Your task to perform on an android device: View the shopping cart on walmart. Add corsair k70 to the cart on walmart, then select checkout. Image 0: 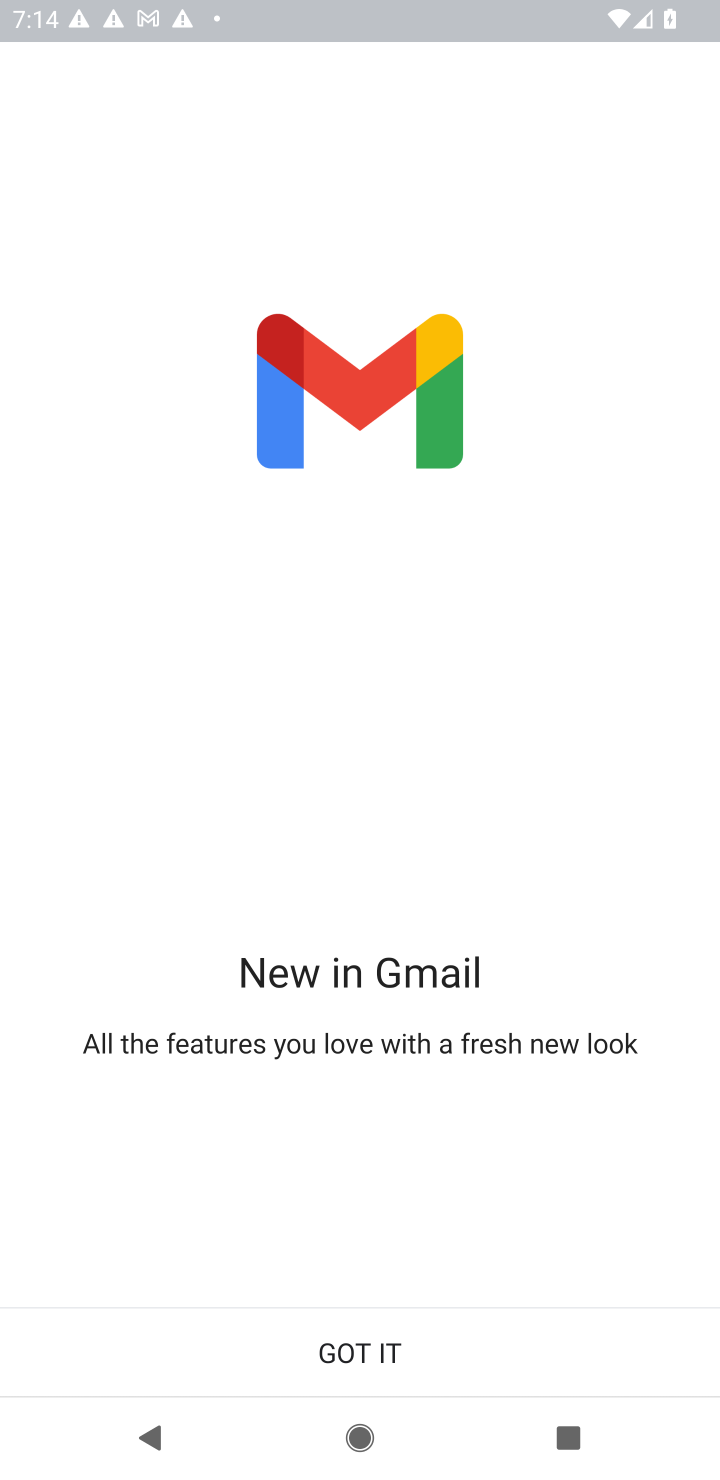
Step 0: press home button
Your task to perform on an android device: View the shopping cart on walmart. Add corsair k70 to the cart on walmart, then select checkout. Image 1: 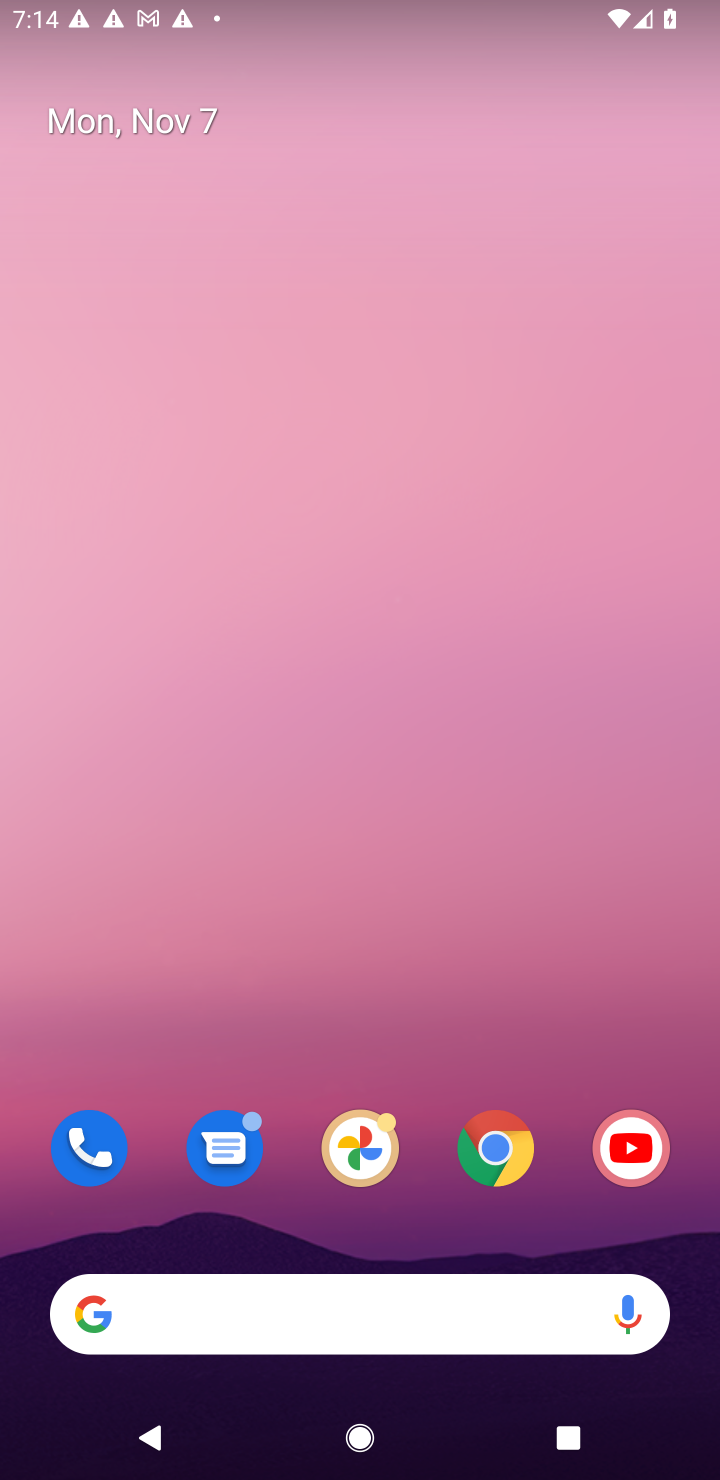
Step 1: click (493, 1127)
Your task to perform on an android device: View the shopping cart on walmart. Add corsair k70 to the cart on walmart, then select checkout. Image 2: 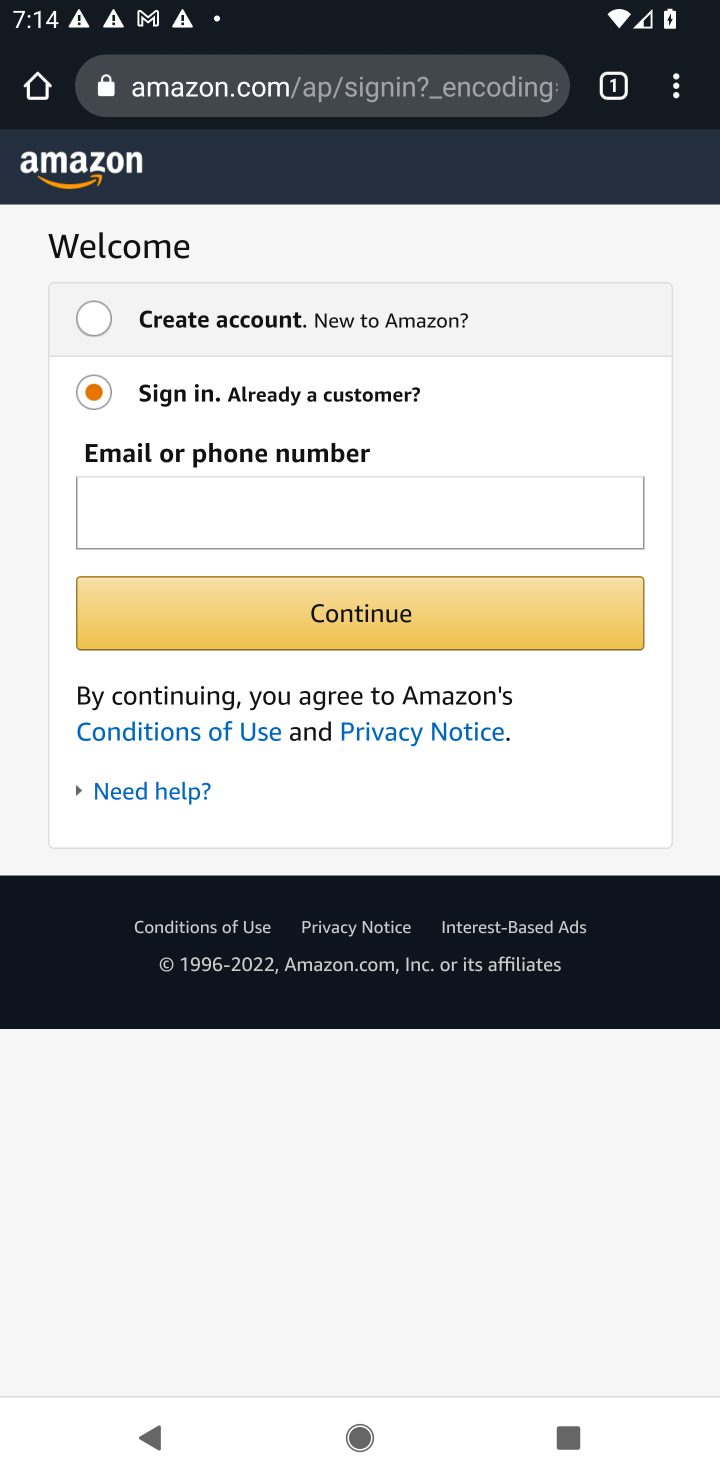
Step 2: click (435, 79)
Your task to perform on an android device: View the shopping cart on walmart. Add corsair k70 to the cart on walmart, then select checkout. Image 3: 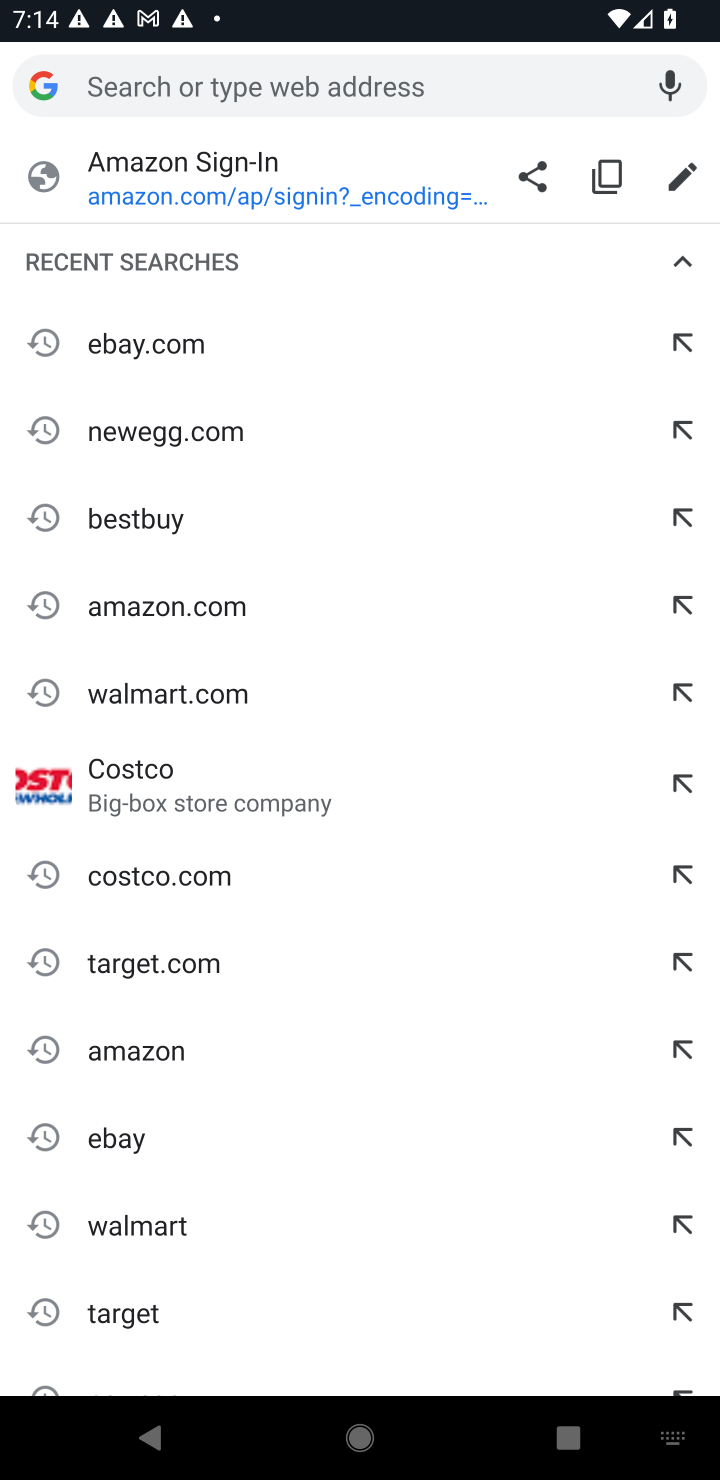
Step 3: type "walmart"
Your task to perform on an android device: View the shopping cart on walmart. Add corsair k70 to the cart on walmart, then select checkout. Image 4: 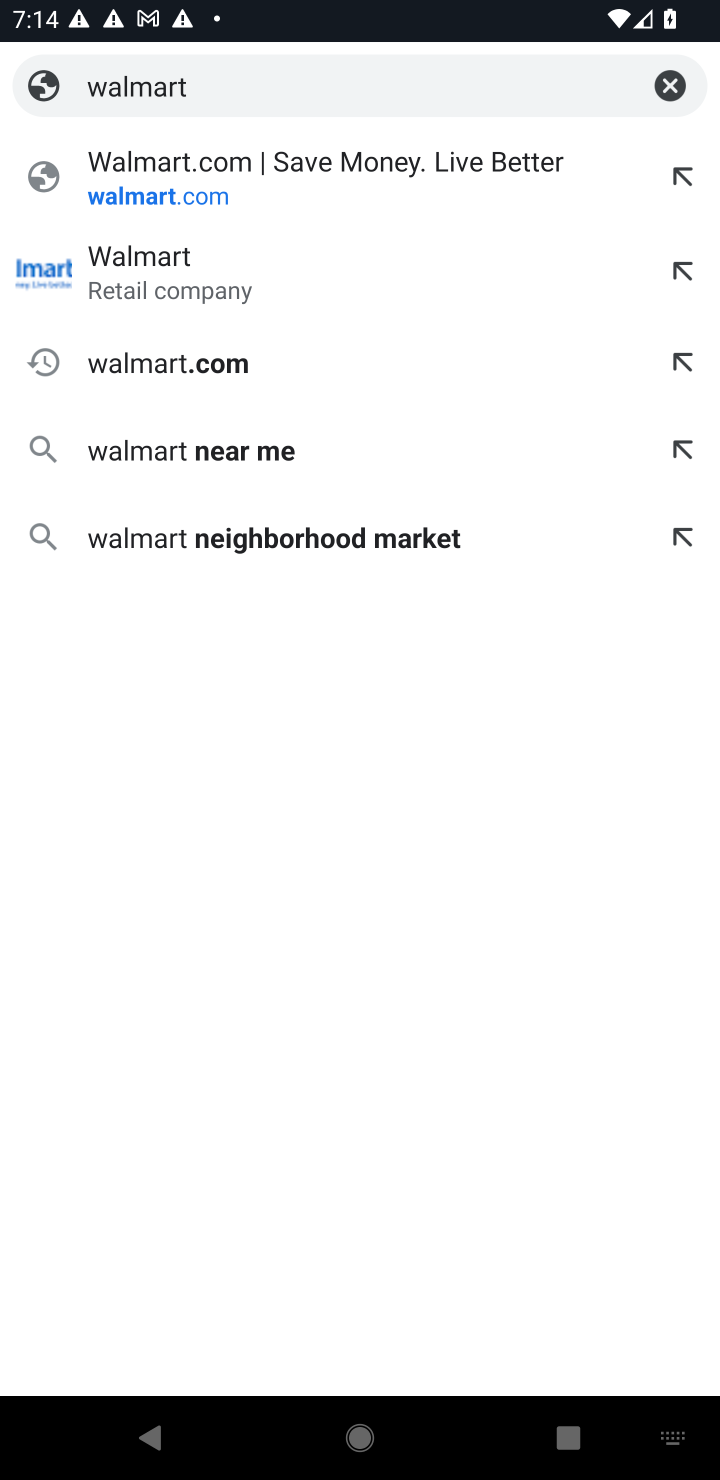
Step 4: click (228, 367)
Your task to perform on an android device: View the shopping cart on walmart. Add corsair k70 to the cart on walmart, then select checkout. Image 5: 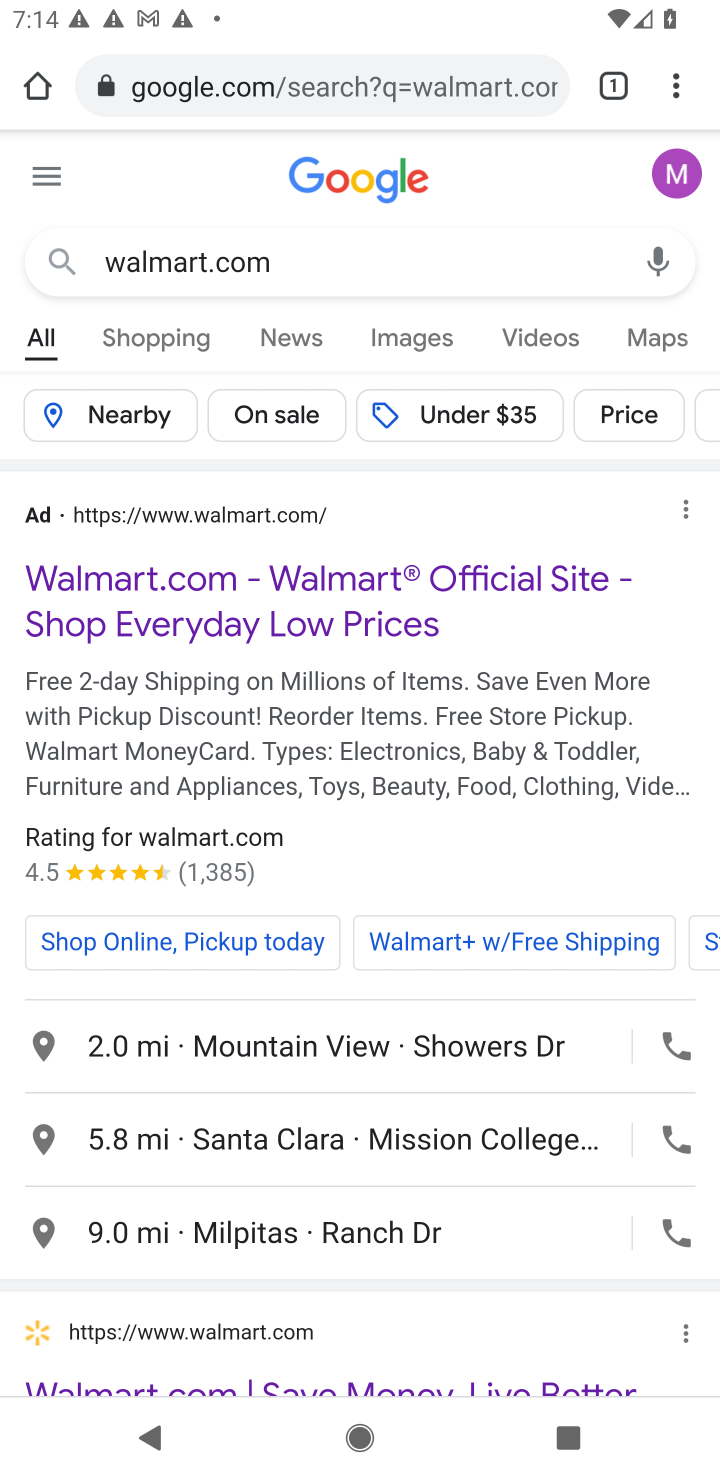
Step 5: click (276, 514)
Your task to perform on an android device: View the shopping cart on walmart. Add corsair k70 to the cart on walmart, then select checkout. Image 6: 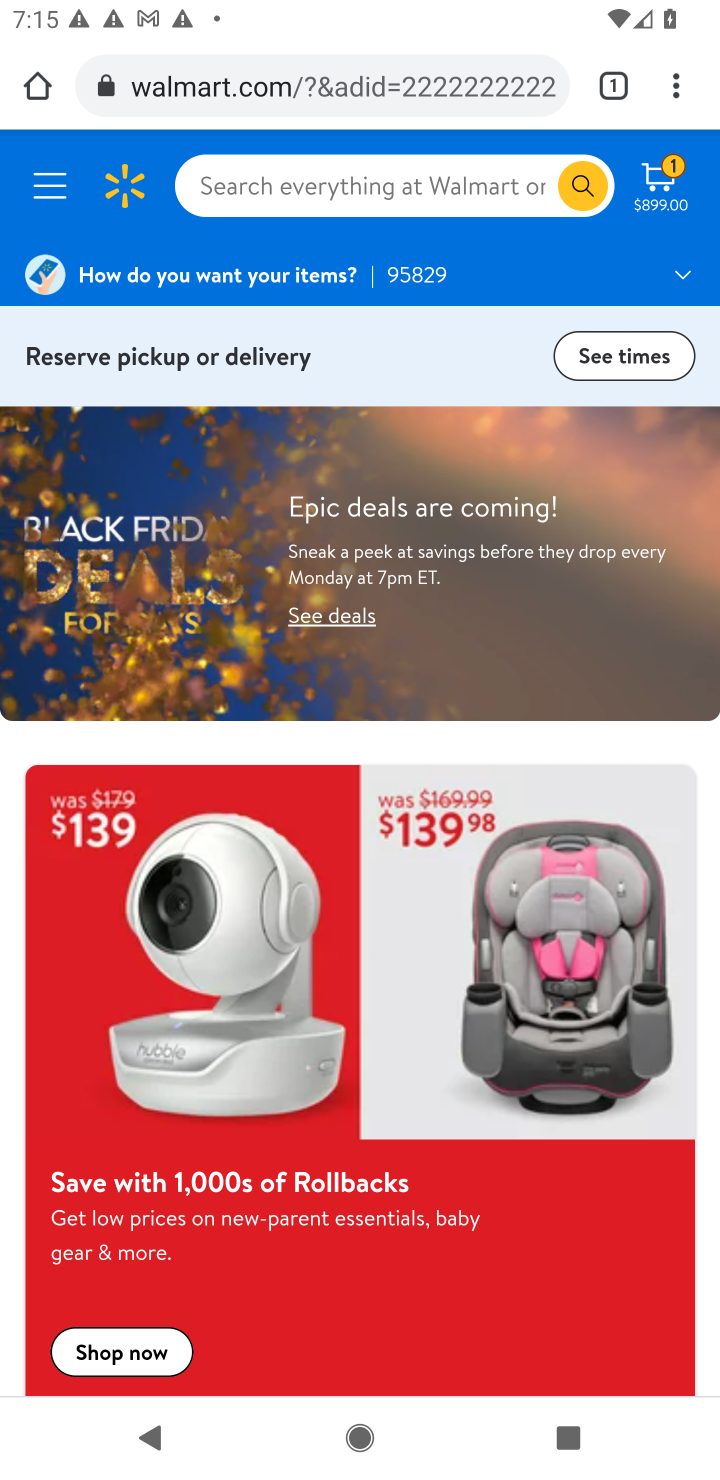
Step 6: click (433, 173)
Your task to perform on an android device: View the shopping cart on walmart. Add corsair k70 to the cart on walmart, then select checkout. Image 7: 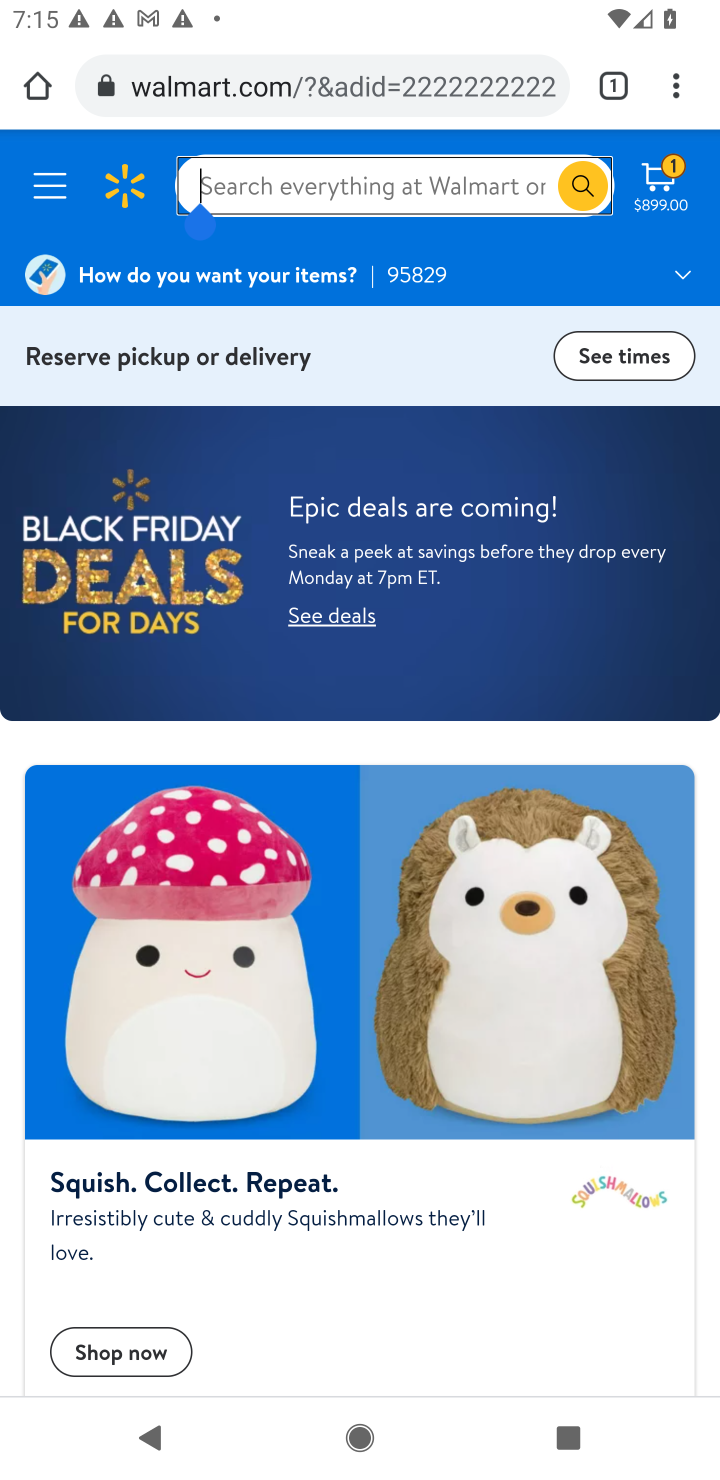
Step 7: type "corsair k70"
Your task to perform on an android device: View the shopping cart on walmart. Add corsair k70 to the cart on walmart, then select checkout. Image 8: 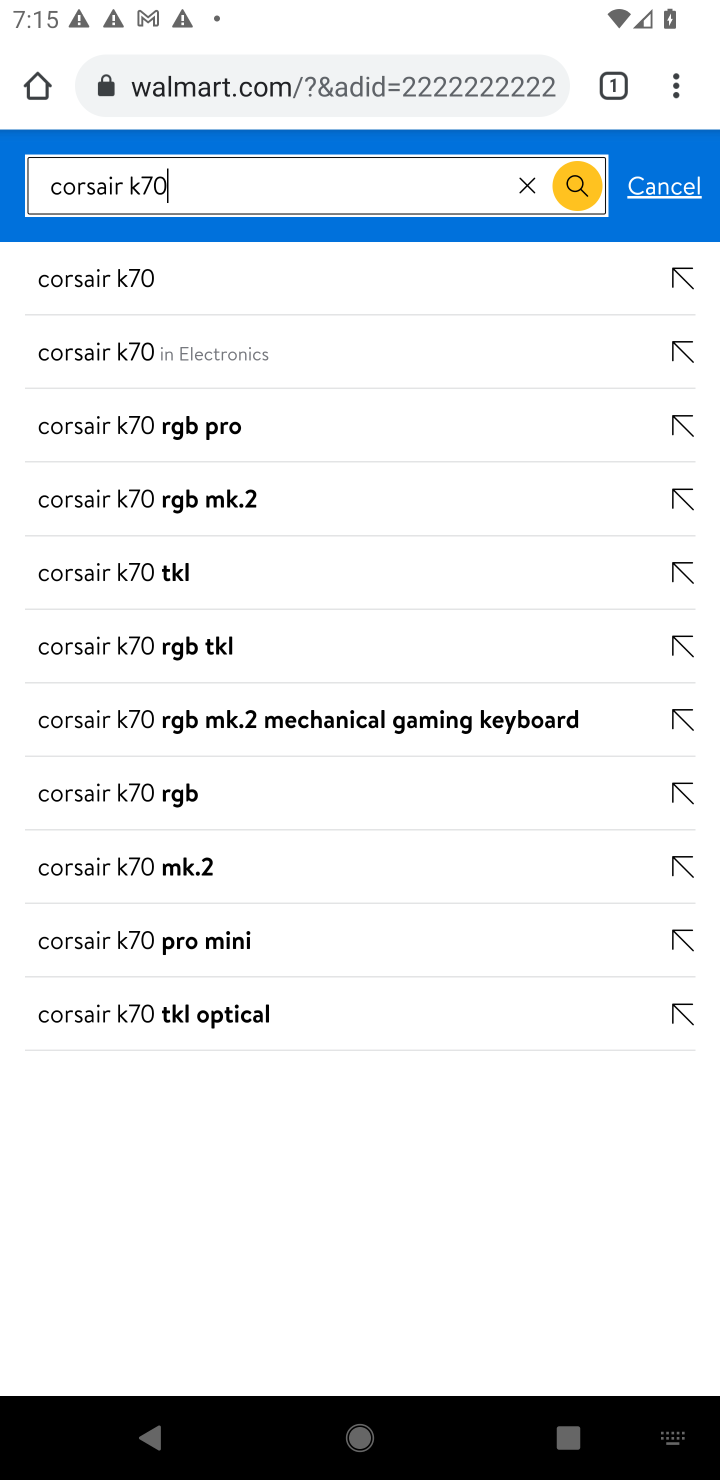
Step 8: click (131, 266)
Your task to perform on an android device: View the shopping cart on walmart. Add corsair k70 to the cart on walmart, then select checkout. Image 9: 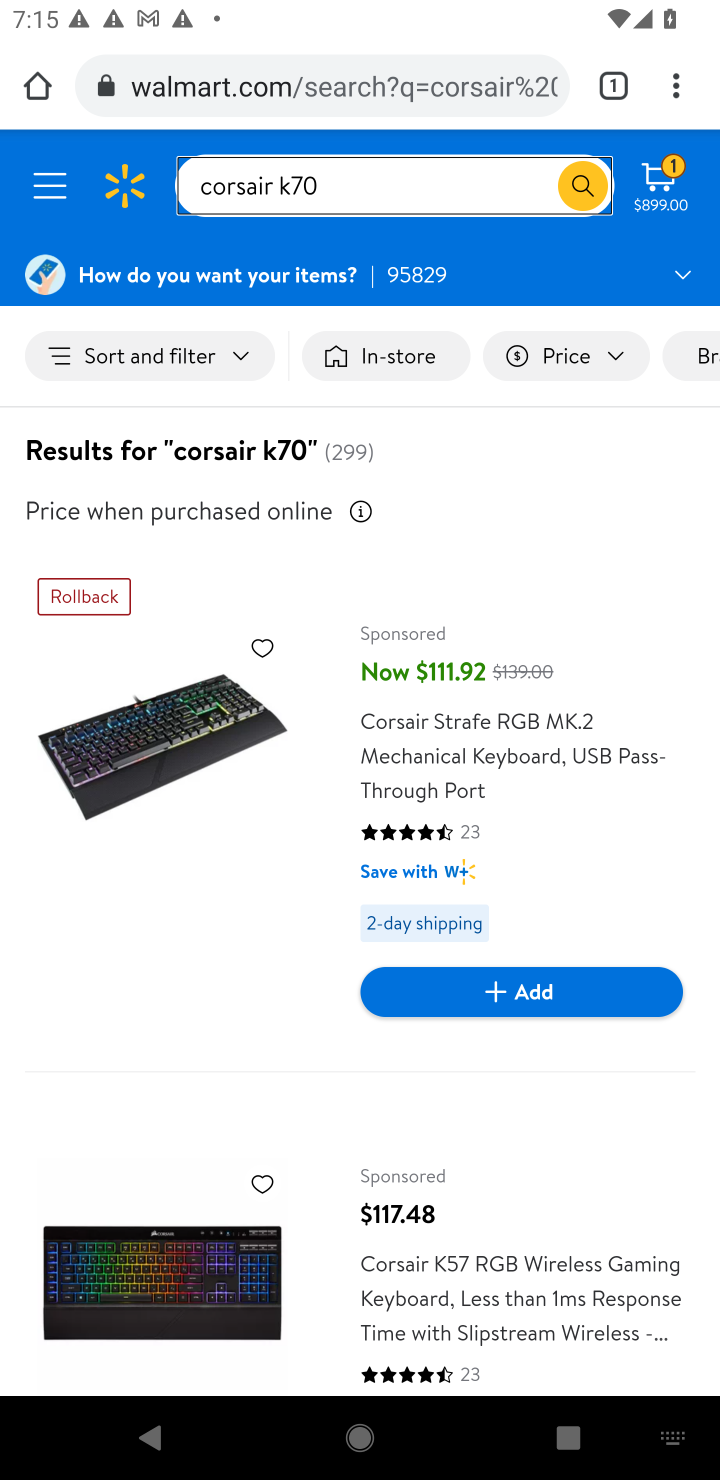
Step 9: drag from (212, 960) to (244, 485)
Your task to perform on an android device: View the shopping cart on walmart. Add corsair k70 to the cart on walmart, then select checkout. Image 10: 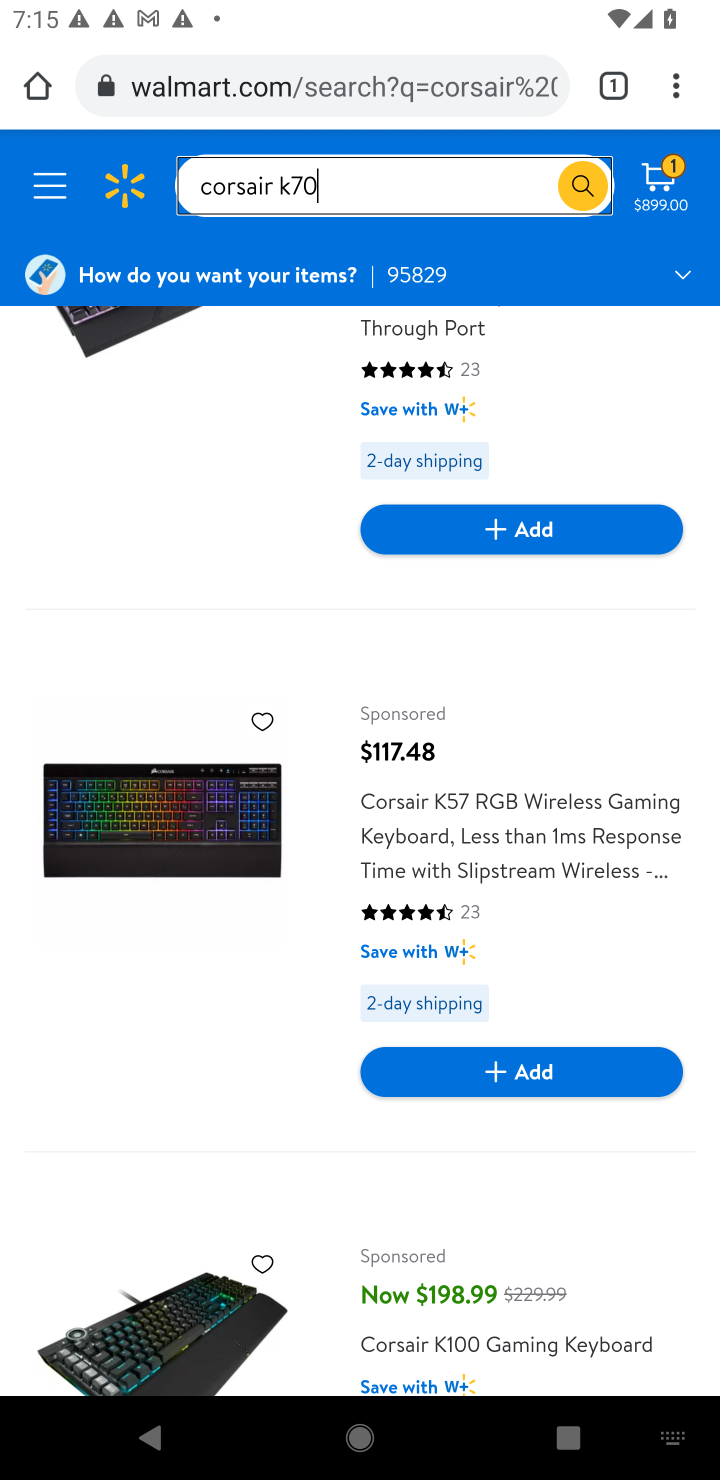
Step 10: drag from (252, 1093) to (281, 661)
Your task to perform on an android device: View the shopping cart on walmart. Add corsair k70 to the cart on walmart, then select checkout. Image 11: 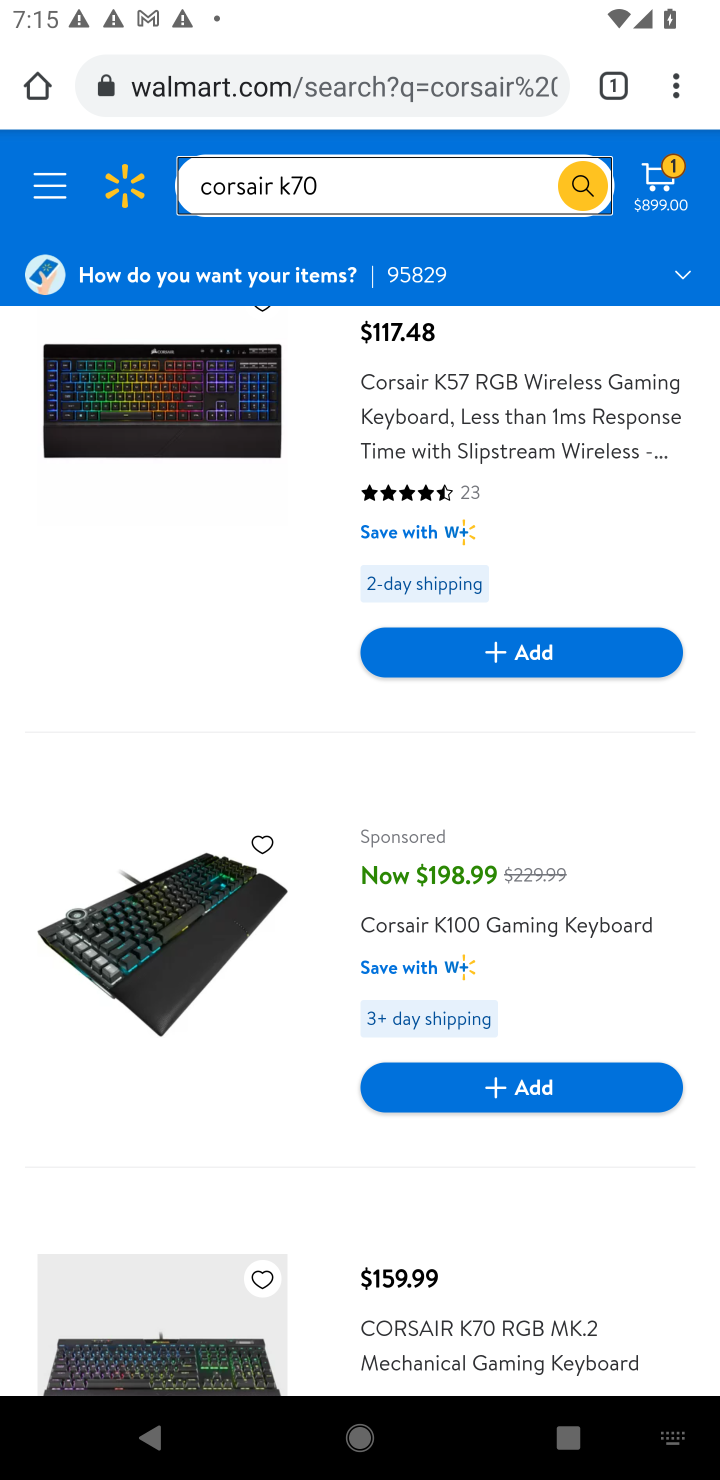
Step 11: drag from (214, 1043) to (285, 545)
Your task to perform on an android device: View the shopping cart on walmart. Add corsair k70 to the cart on walmart, then select checkout. Image 12: 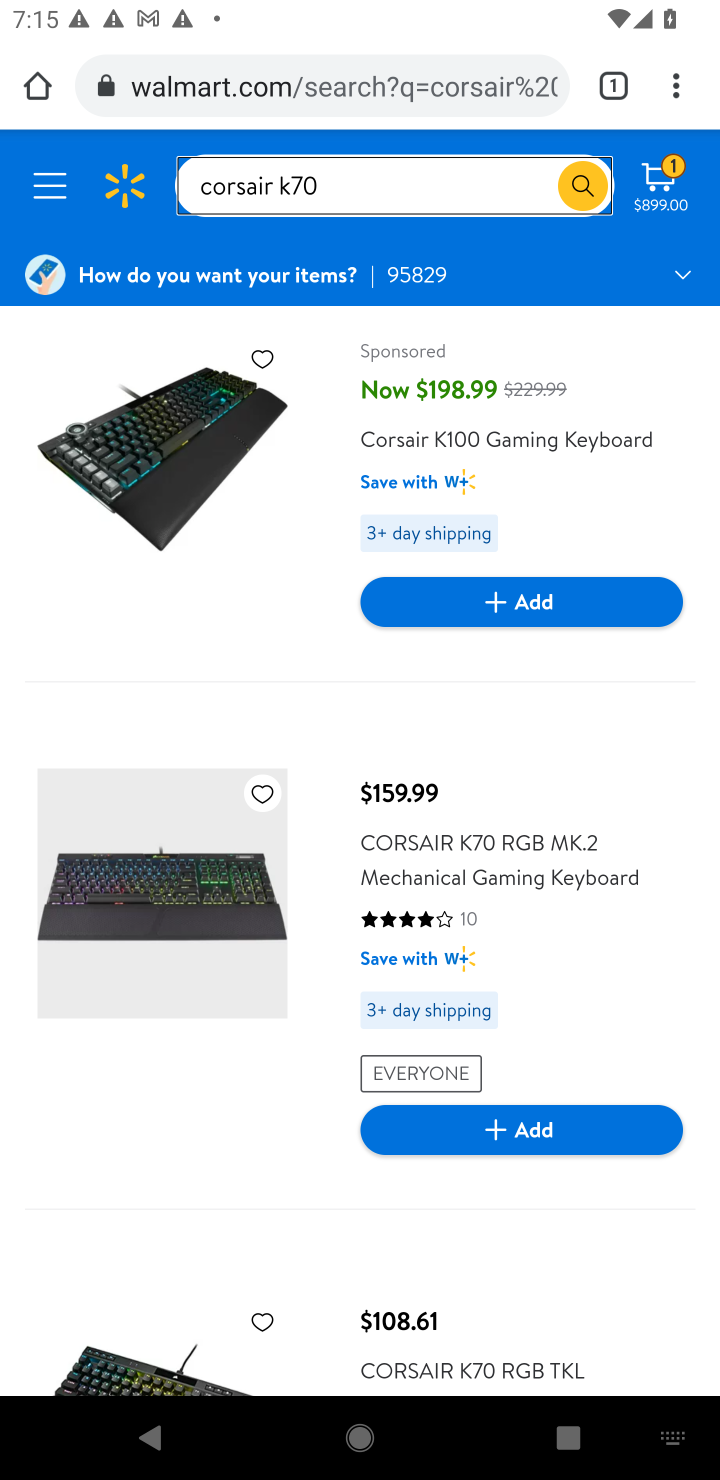
Step 12: click (201, 896)
Your task to perform on an android device: View the shopping cart on walmart. Add corsair k70 to the cart on walmart, then select checkout. Image 13: 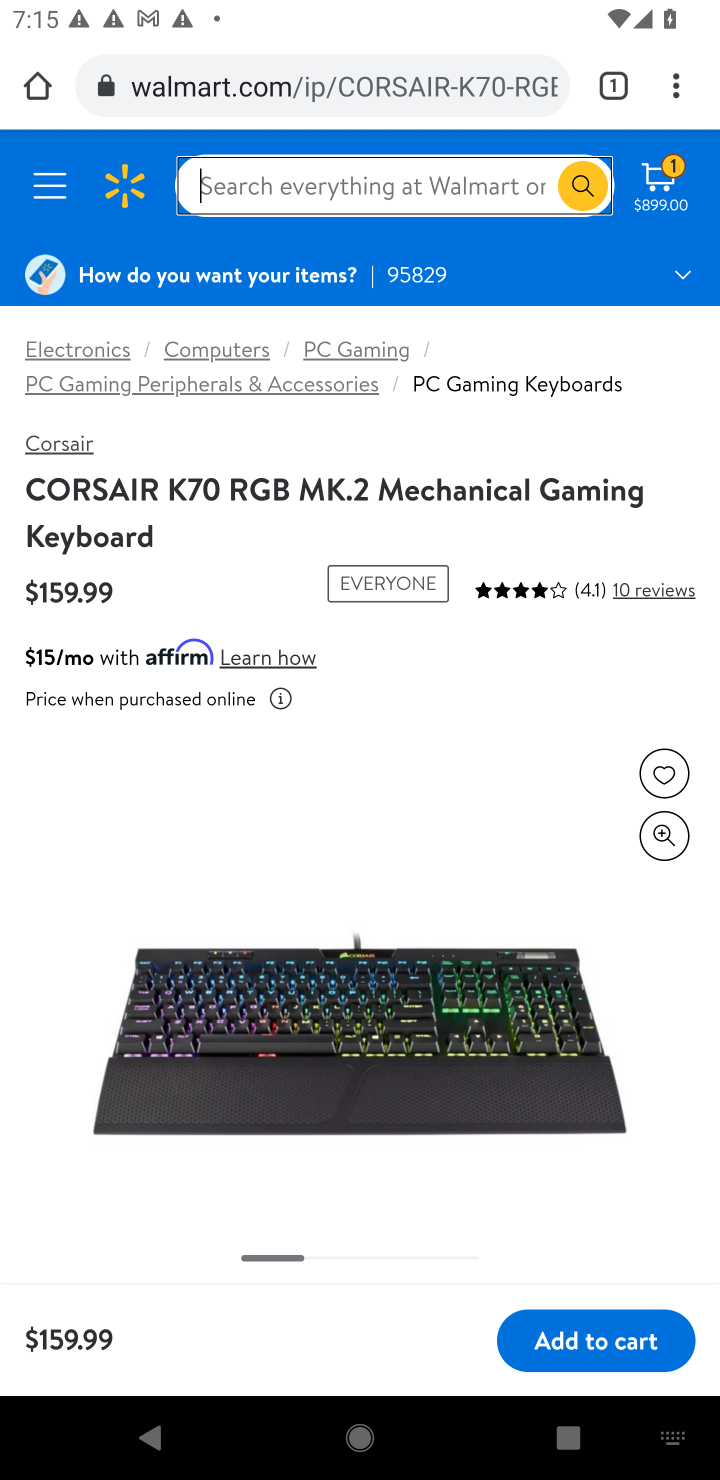
Step 13: click (602, 1352)
Your task to perform on an android device: View the shopping cart on walmart. Add corsair k70 to the cart on walmart, then select checkout. Image 14: 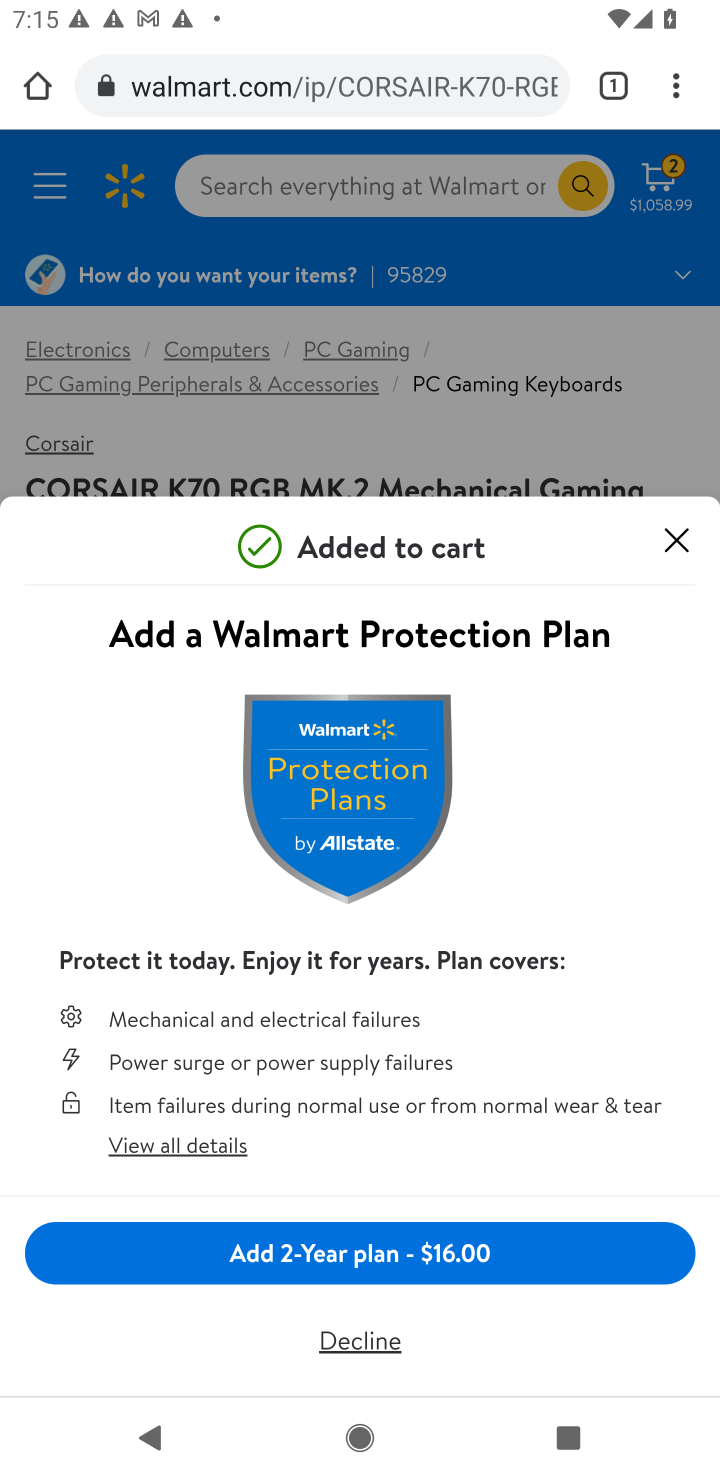
Step 14: click (685, 535)
Your task to perform on an android device: View the shopping cart on walmart. Add corsair k70 to the cart on walmart, then select checkout. Image 15: 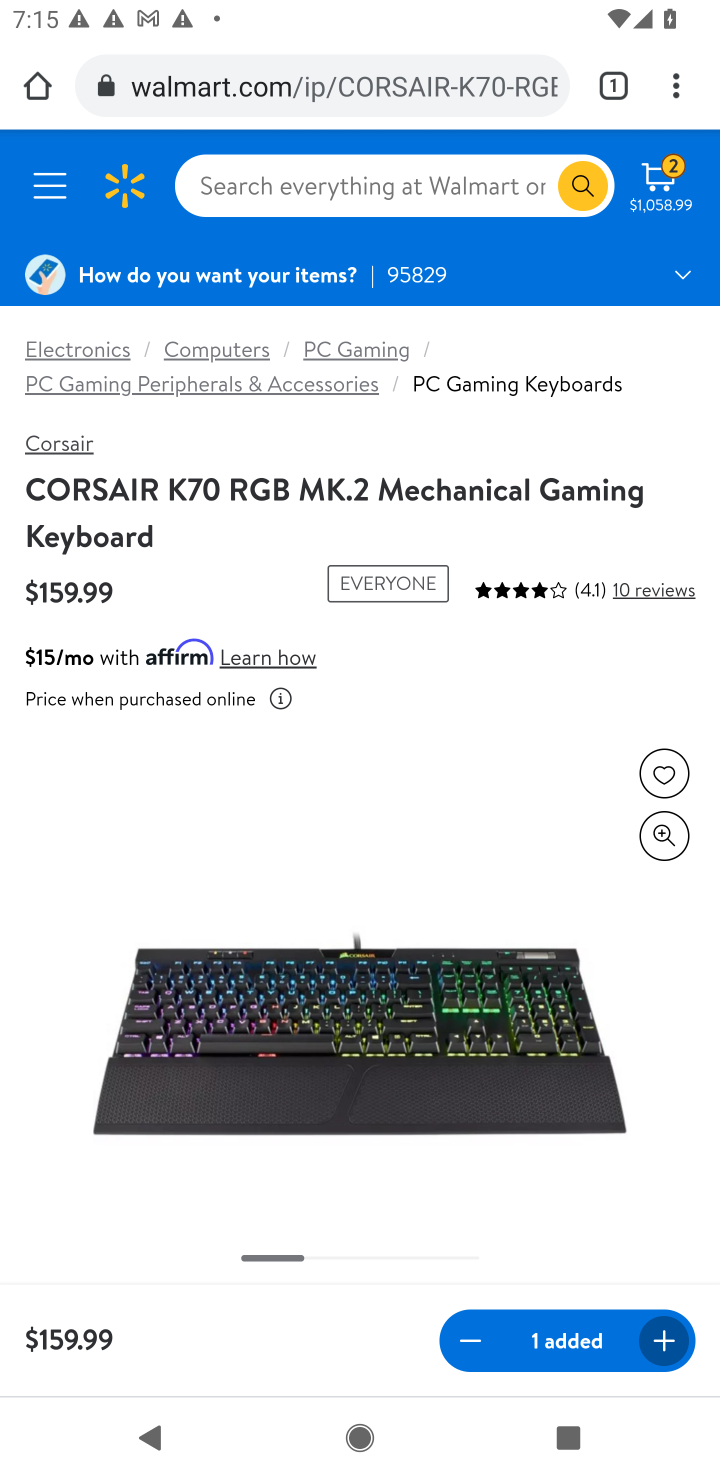
Step 15: click (671, 189)
Your task to perform on an android device: View the shopping cart on walmart. Add corsair k70 to the cart on walmart, then select checkout. Image 16: 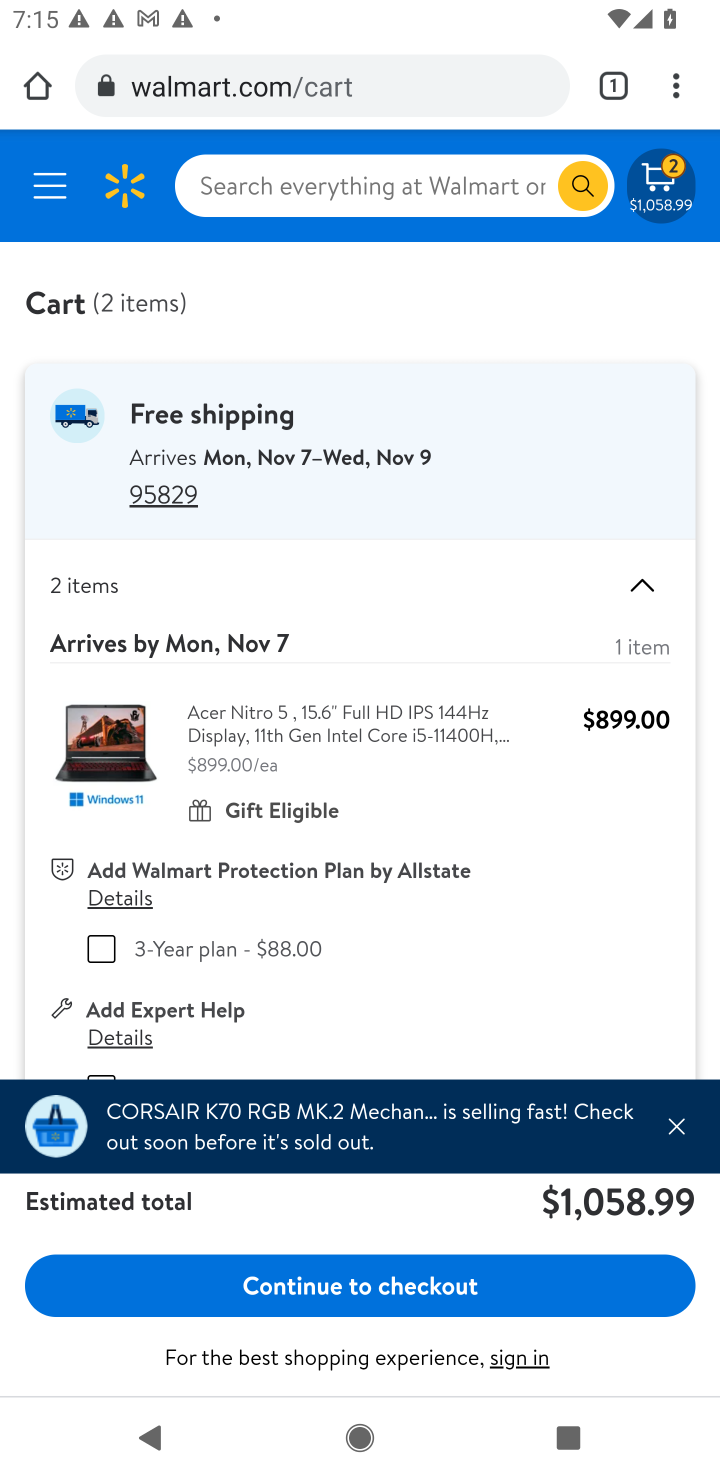
Step 16: click (385, 1270)
Your task to perform on an android device: View the shopping cart on walmart. Add corsair k70 to the cart on walmart, then select checkout. Image 17: 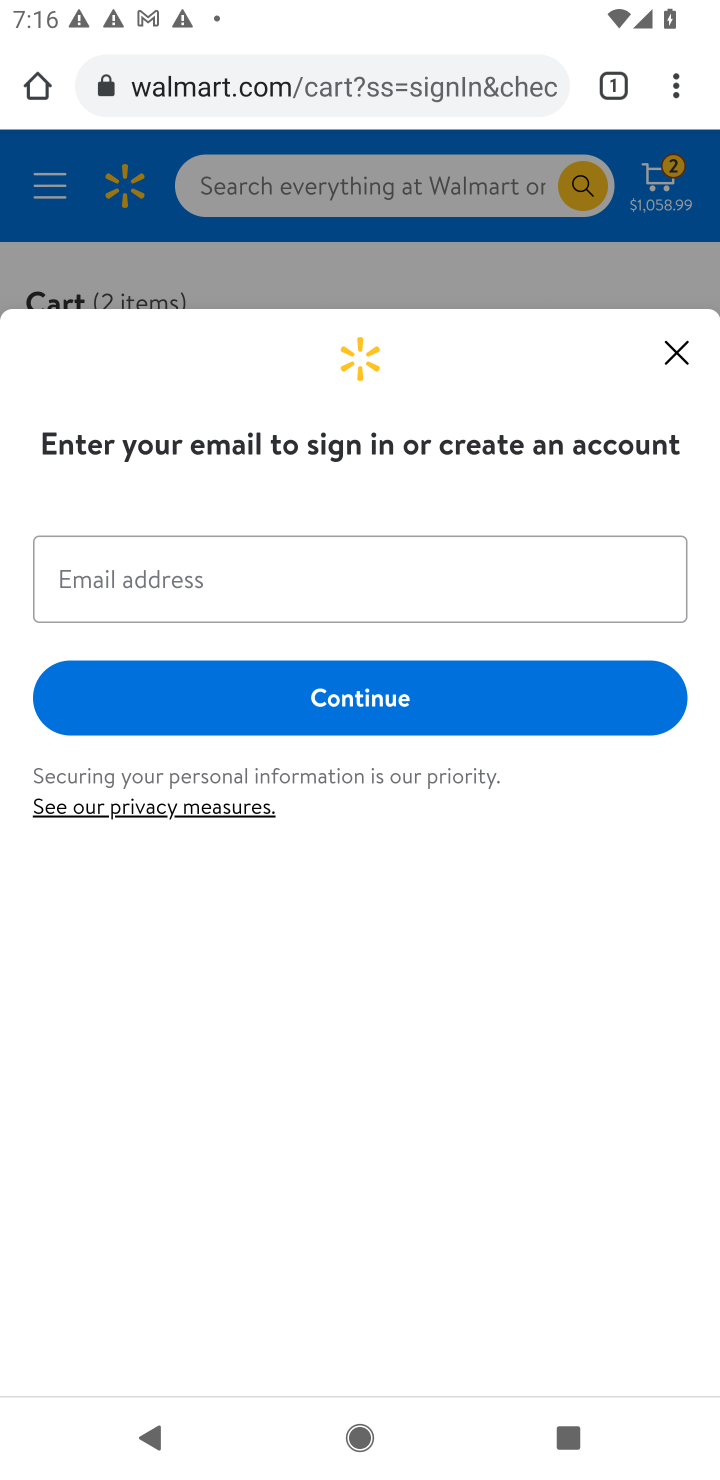
Step 17: task complete